Your task to perform on an android device: turn off location Image 0: 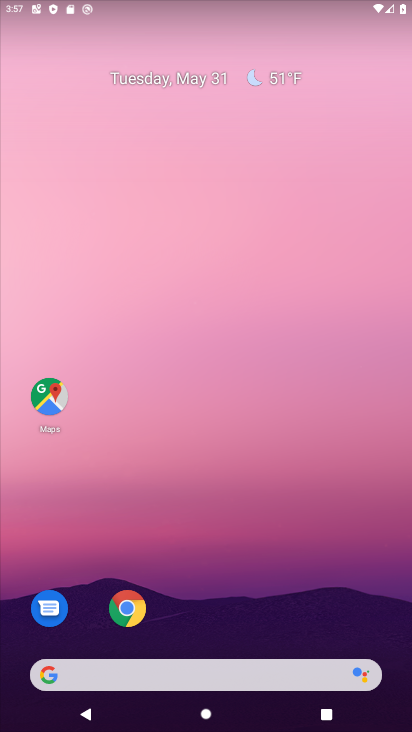
Step 0: drag from (230, 638) to (211, 305)
Your task to perform on an android device: turn off location Image 1: 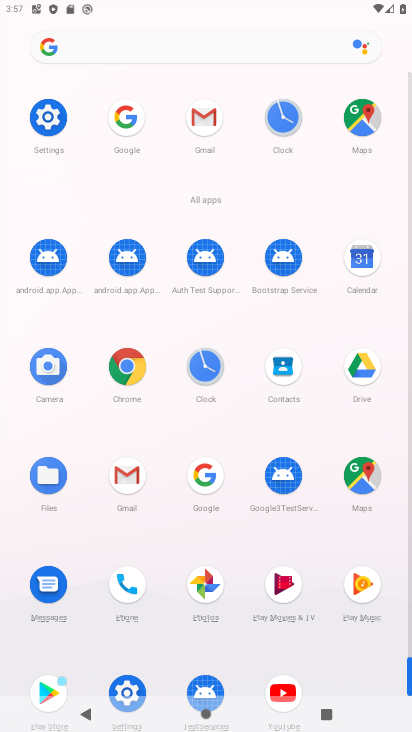
Step 1: click (54, 112)
Your task to perform on an android device: turn off location Image 2: 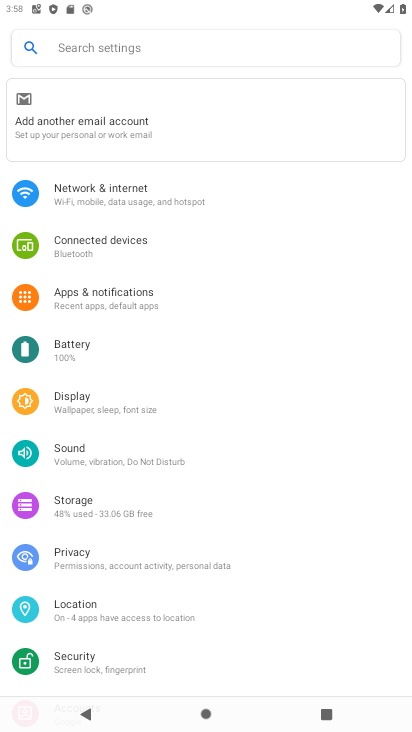
Step 2: click (112, 613)
Your task to perform on an android device: turn off location Image 3: 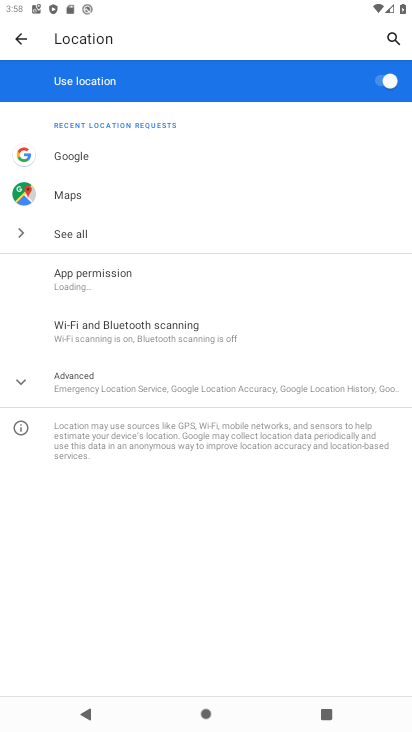
Step 3: click (372, 78)
Your task to perform on an android device: turn off location Image 4: 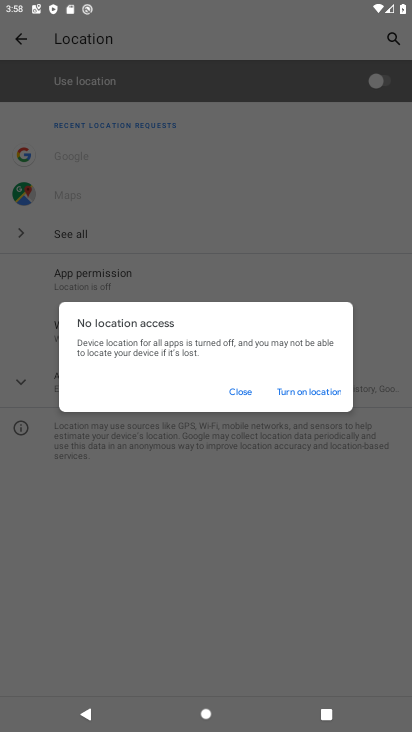
Step 4: click (239, 390)
Your task to perform on an android device: turn off location Image 5: 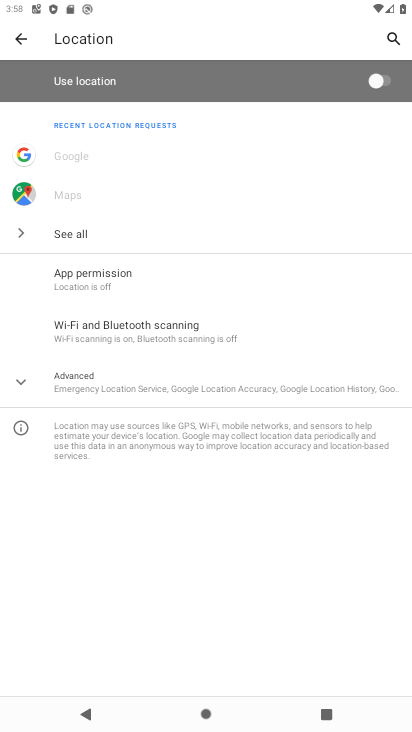
Step 5: task complete